Your task to perform on an android device: Go to settings Image 0: 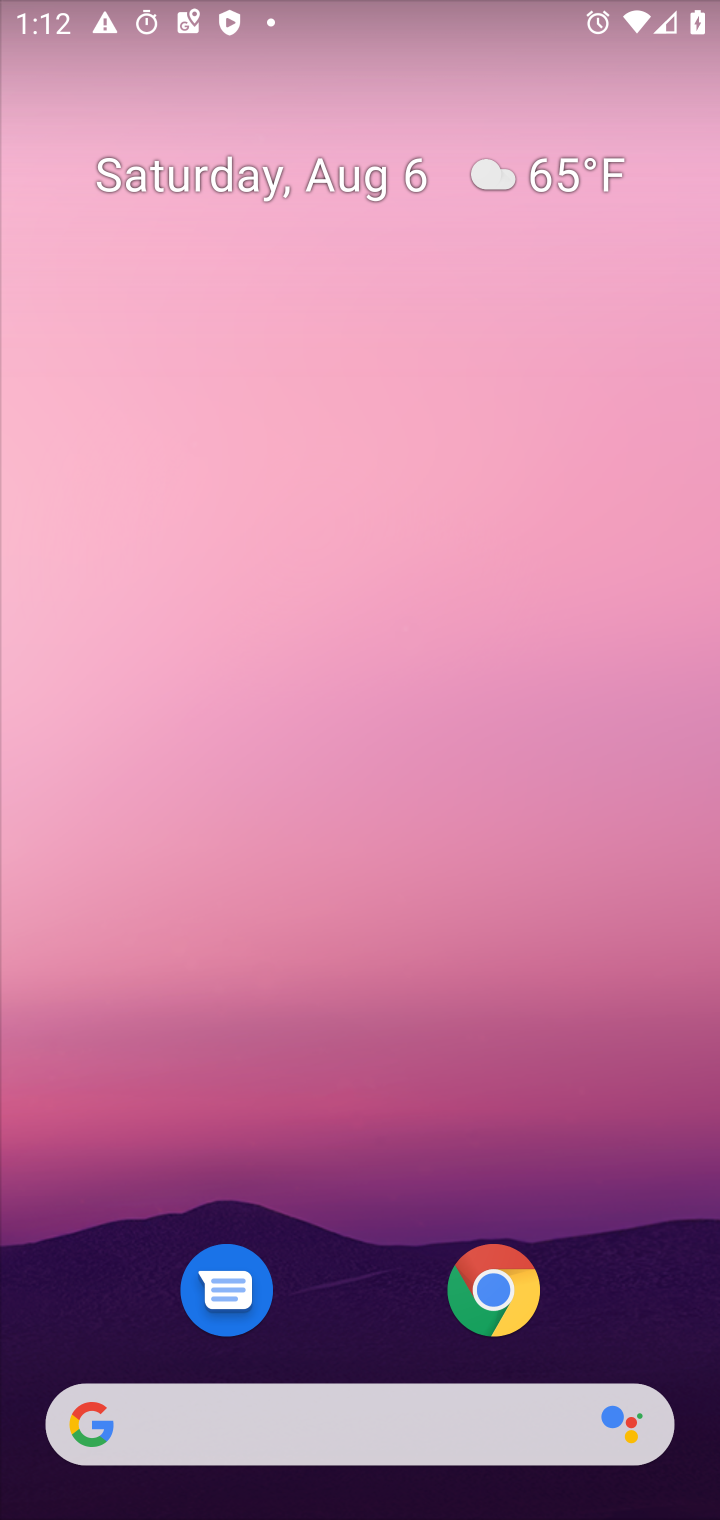
Step 0: drag from (374, 1317) to (380, 206)
Your task to perform on an android device: Go to settings Image 1: 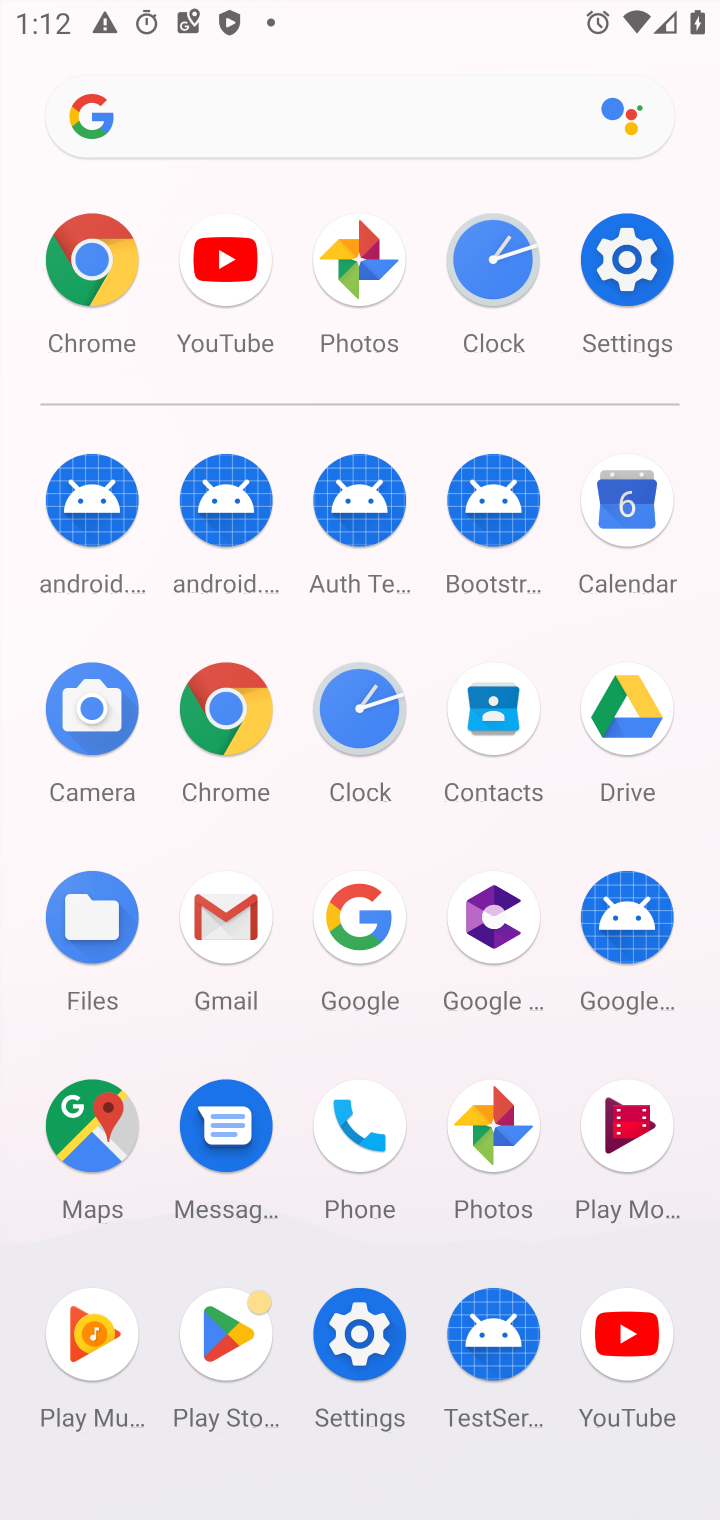
Step 1: click (618, 244)
Your task to perform on an android device: Go to settings Image 2: 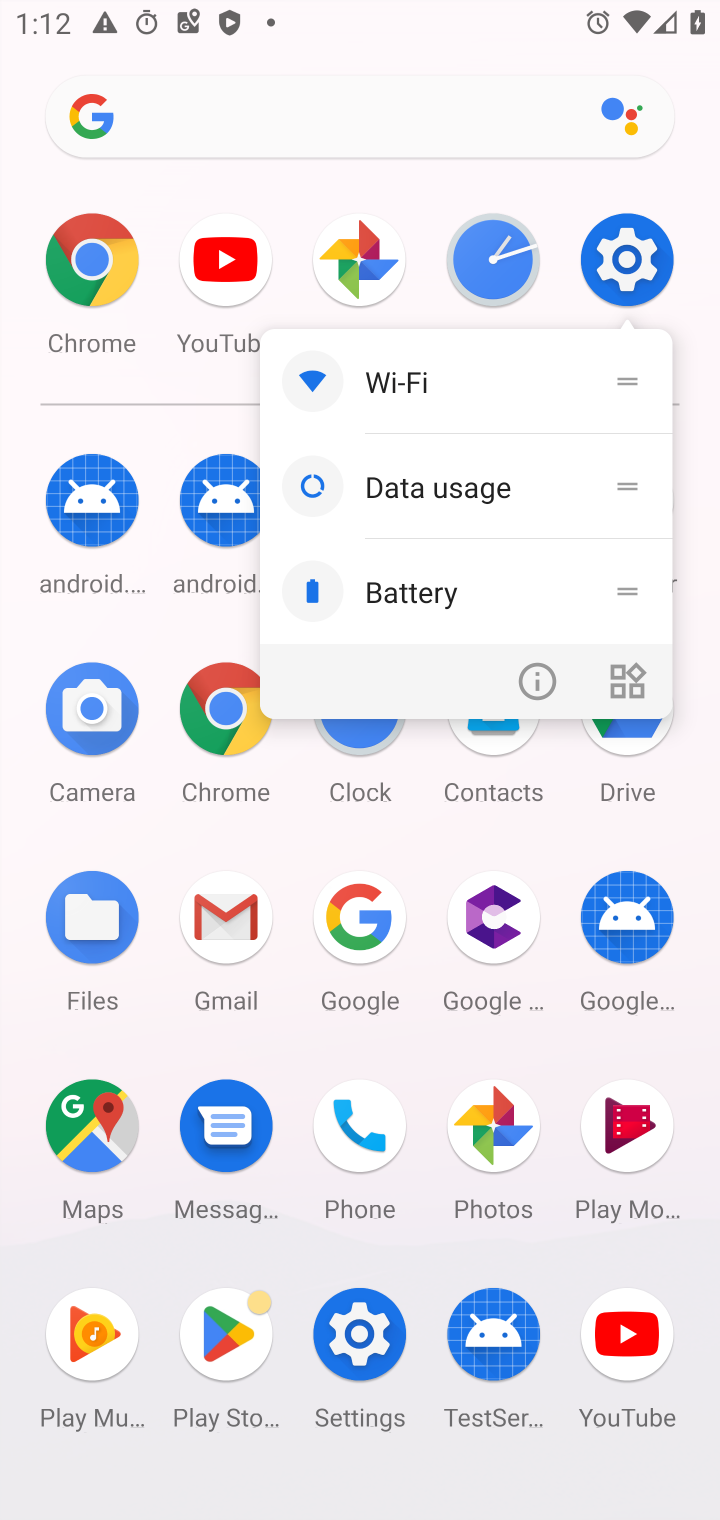
Step 2: click (623, 252)
Your task to perform on an android device: Go to settings Image 3: 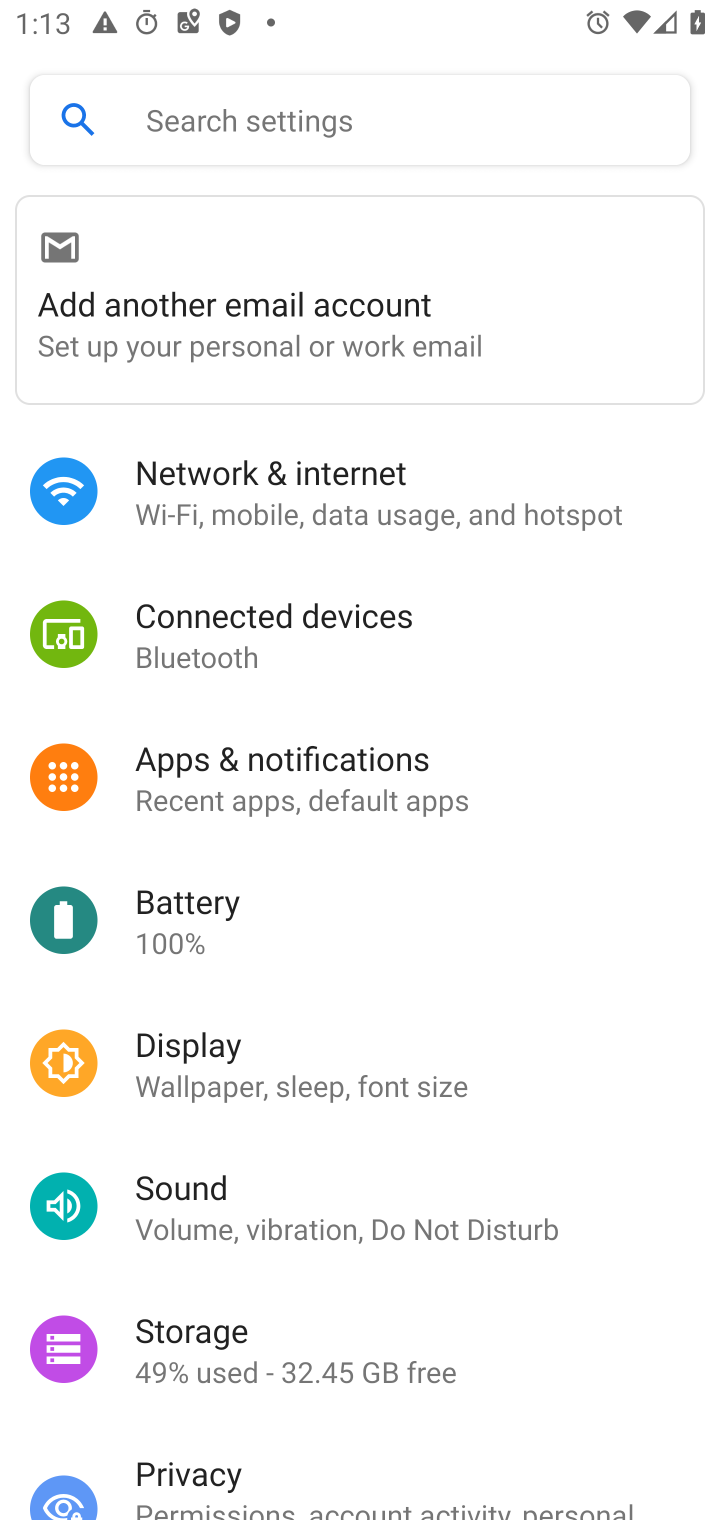
Step 3: task complete